Your task to perform on an android device: open a new tab in the chrome app Image 0: 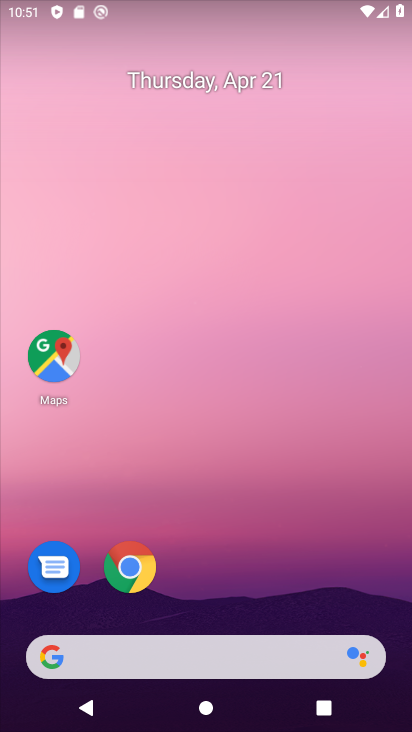
Step 0: click (145, 564)
Your task to perform on an android device: open a new tab in the chrome app Image 1: 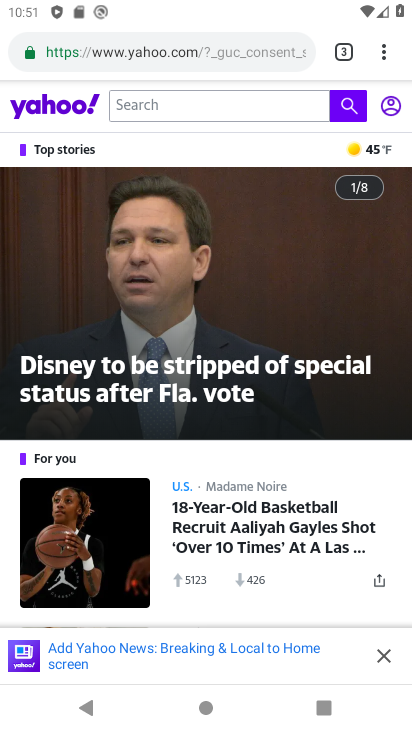
Step 1: click (341, 47)
Your task to perform on an android device: open a new tab in the chrome app Image 2: 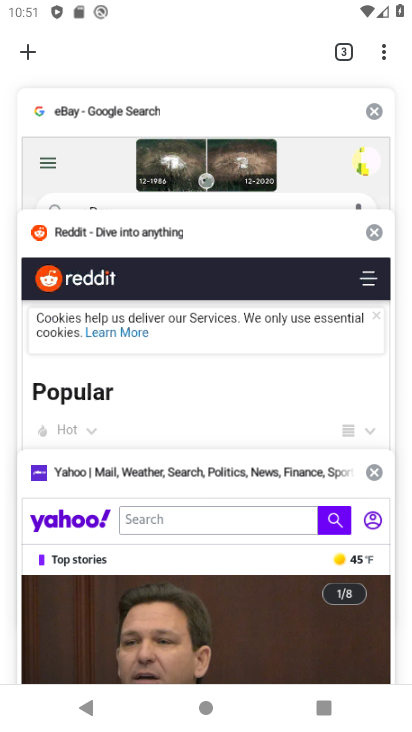
Step 2: click (26, 45)
Your task to perform on an android device: open a new tab in the chrome app Image 3: 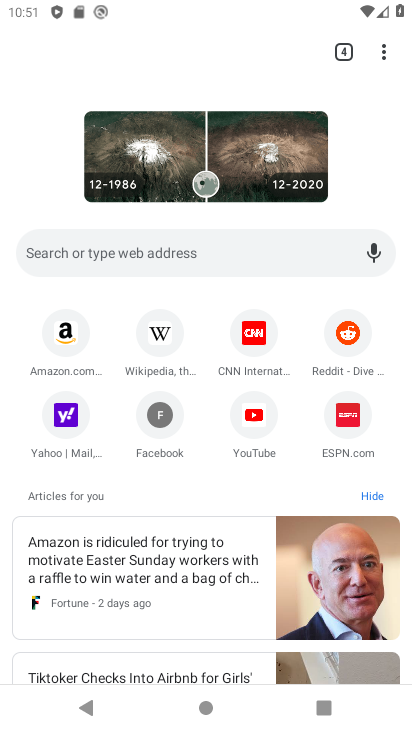
Step 3: task complete